Your task to perform on an android device: Open Yahoo.com Image 0: 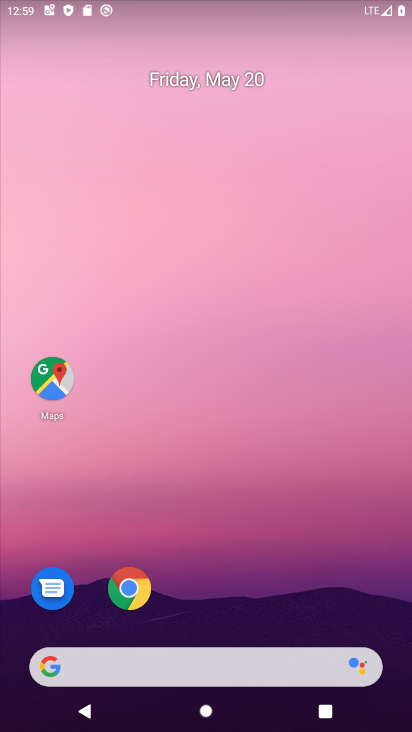
Step 0: click (130, 591)
Your task to perform on an android device: Open Yahoo.com Image 1: 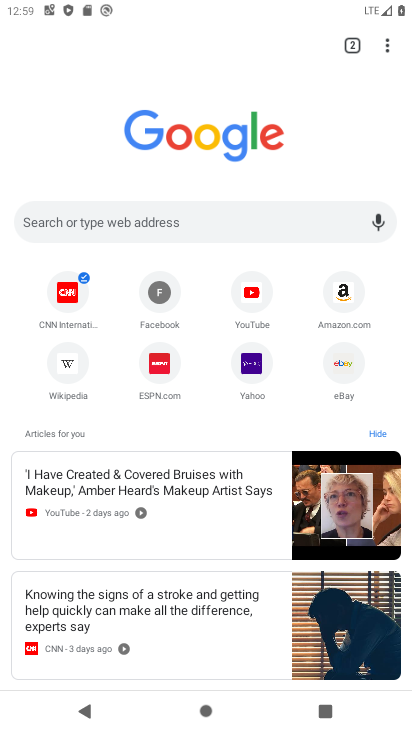
Step 1: click (196, 220)
Your task to perform on an android device: Open Yahoo.com Image 2: 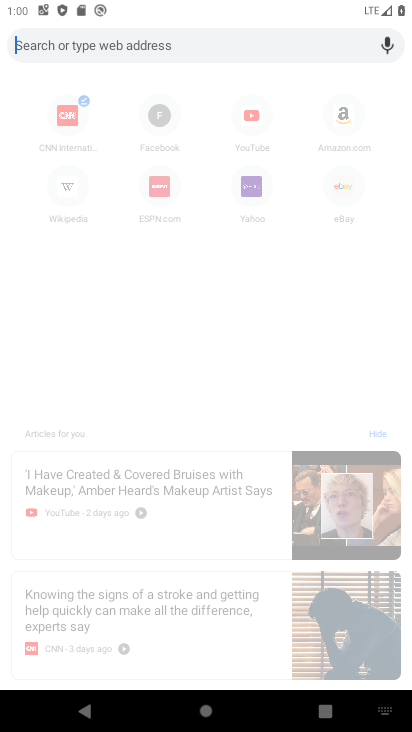
Step 2: type "yahoo.com"
Your task to perform on an android device: Open Yahoo.com Image 3: 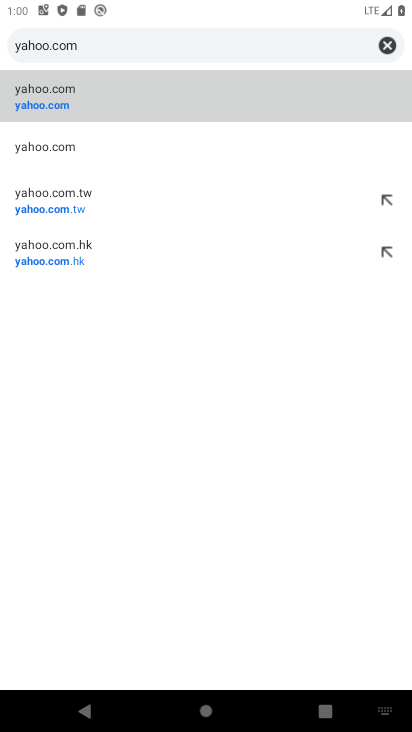
Step 3: click (73, 87)
Your task to perform on an android device: Open Yahoo.com Image 4: 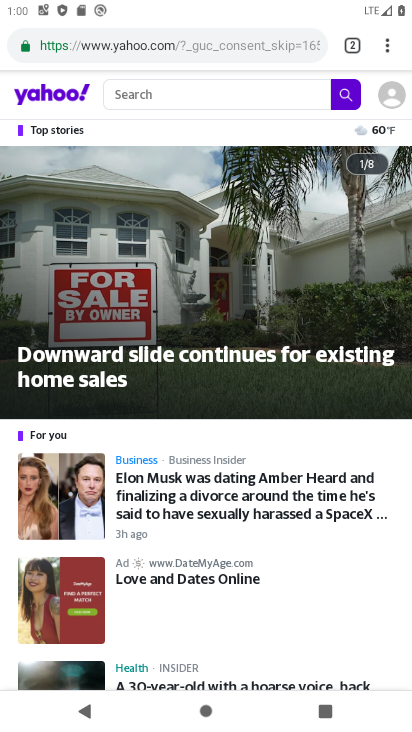
Step 4: task complete